Your task to perform on an android device: What's US dollar exchange rate against the South Korean Won? Image 0: 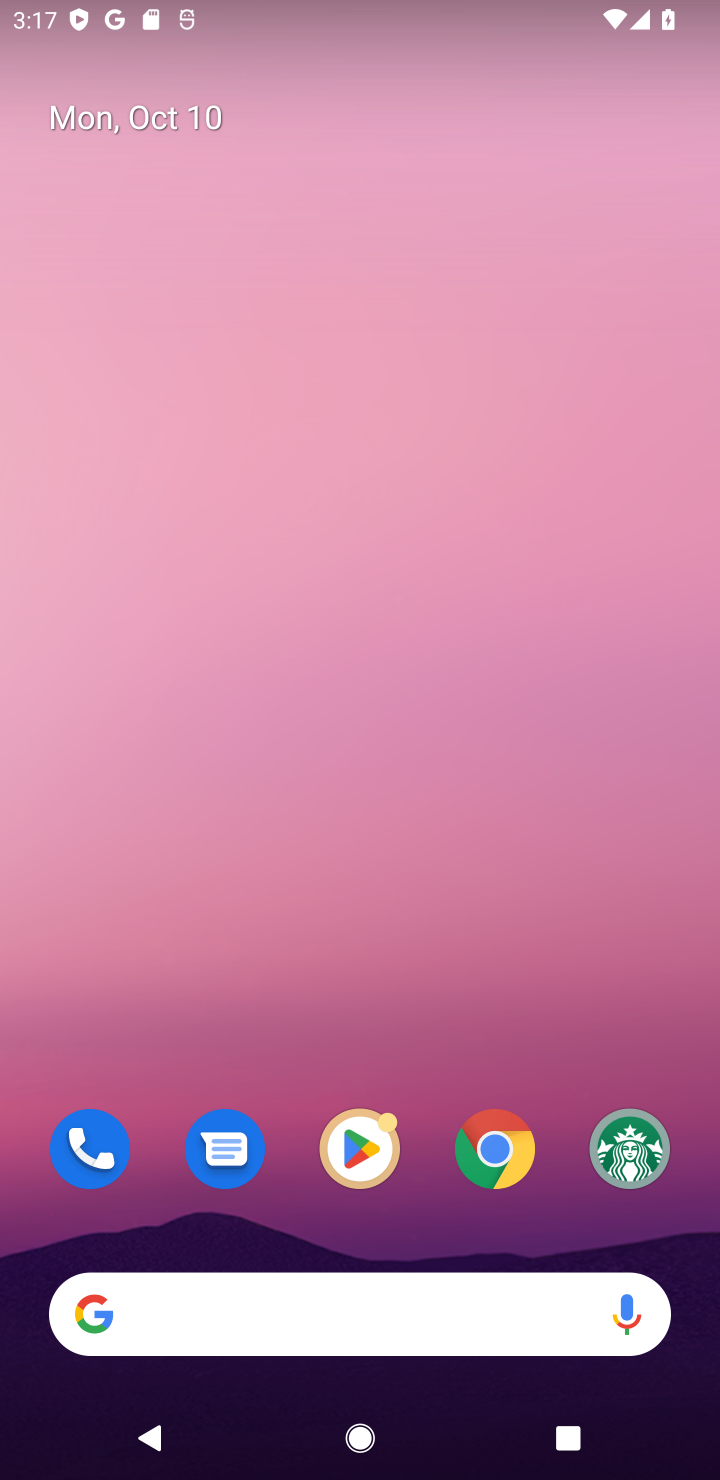
Step 0: click (416, 1291)
Your task to perform on an android device: What's US dollar exchange rate against the South Korean Won? Image 1: 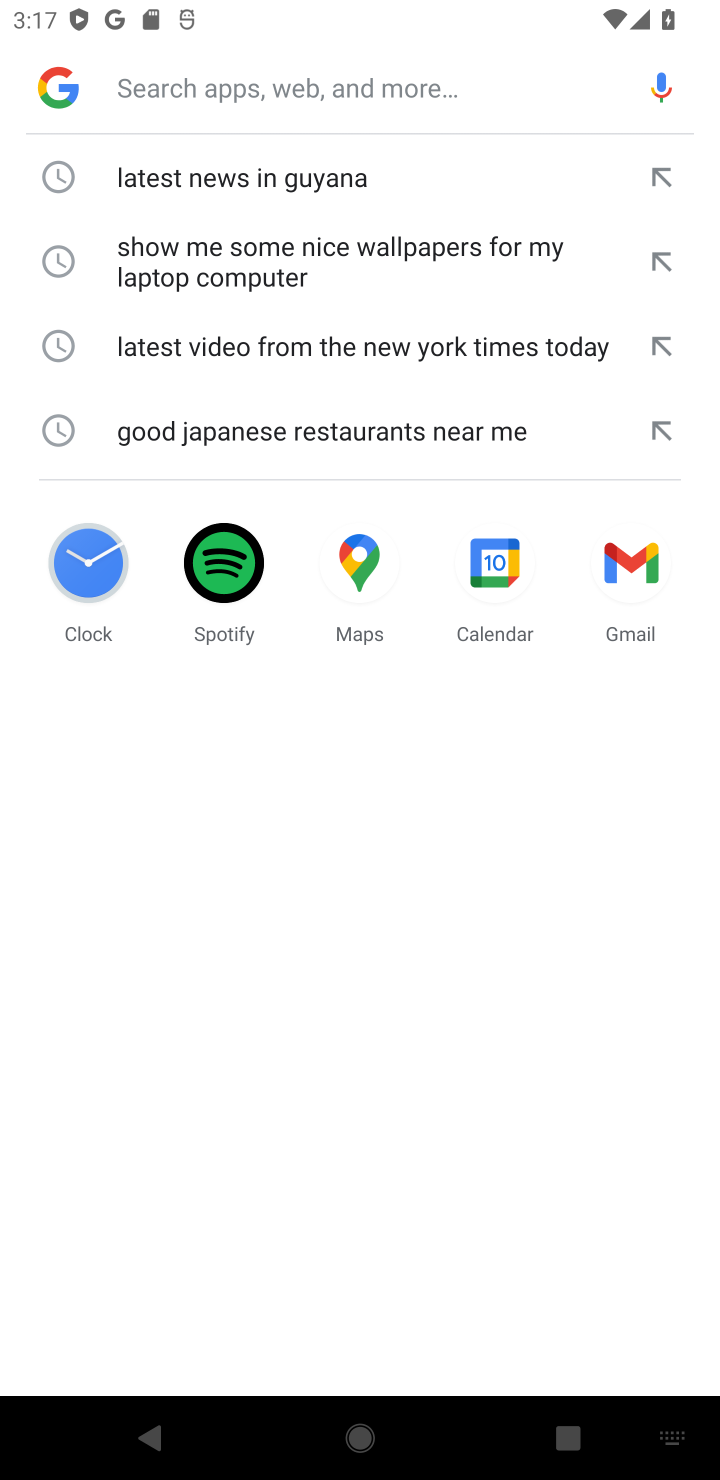
Step 1: type " US dollar exchange rate against the South Korean Won?"
Your task to perform on an android device: What's US dollar exchange rate against the South Korean Won? Image 2: 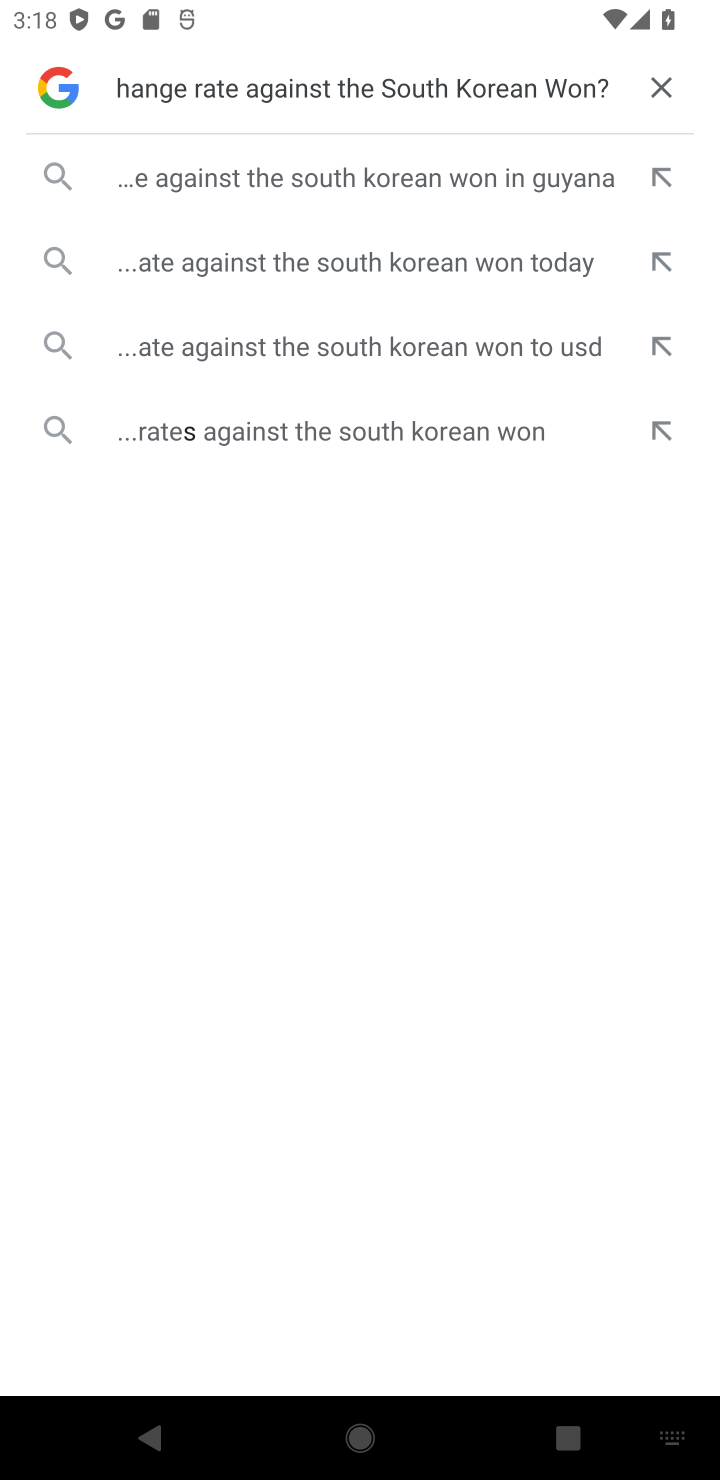
Step 2: click (458, 180)
Your task to perform on an android device: What's US dollar exchange rate against the South Korean Won? Image 3: 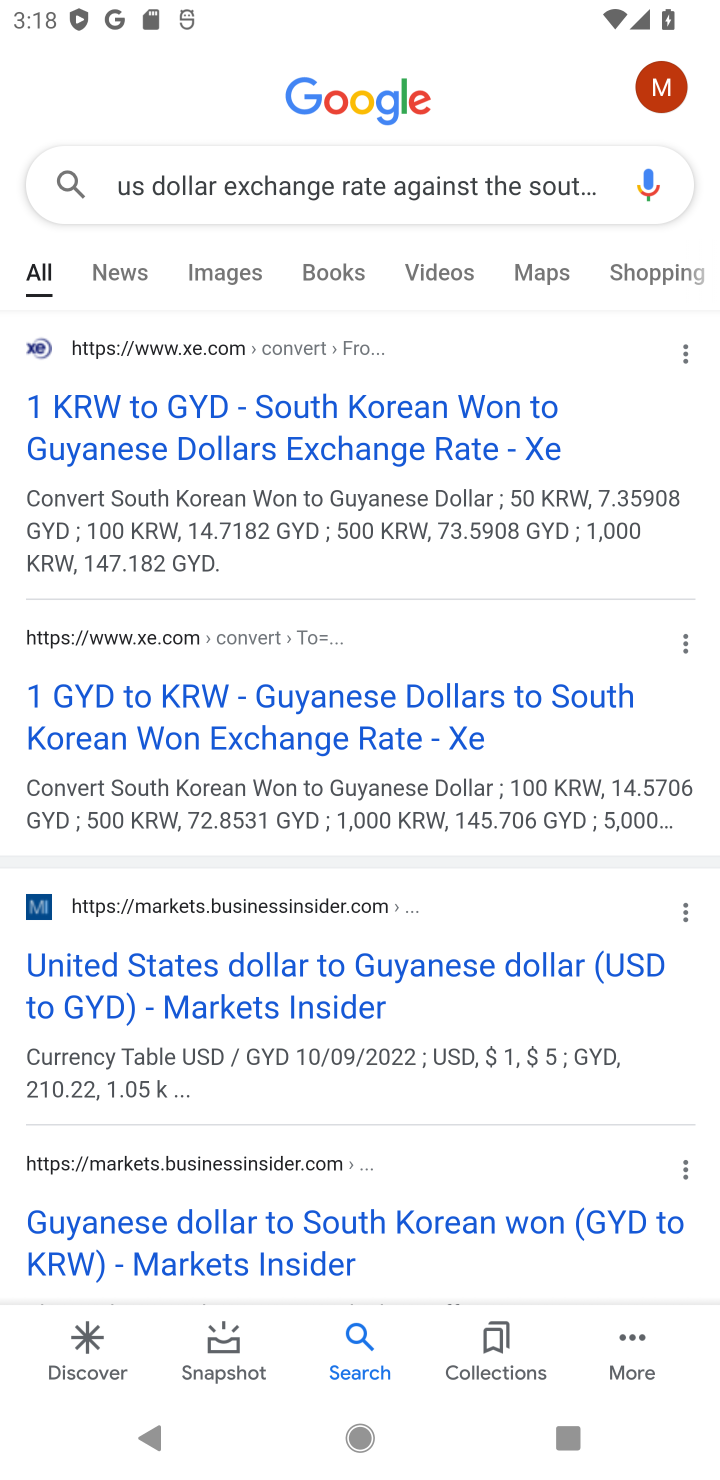
Step 3: click (440, 428)
Your task to perform on an android device: What's US dollar exchange rate against the South Korean Won? Image 4: 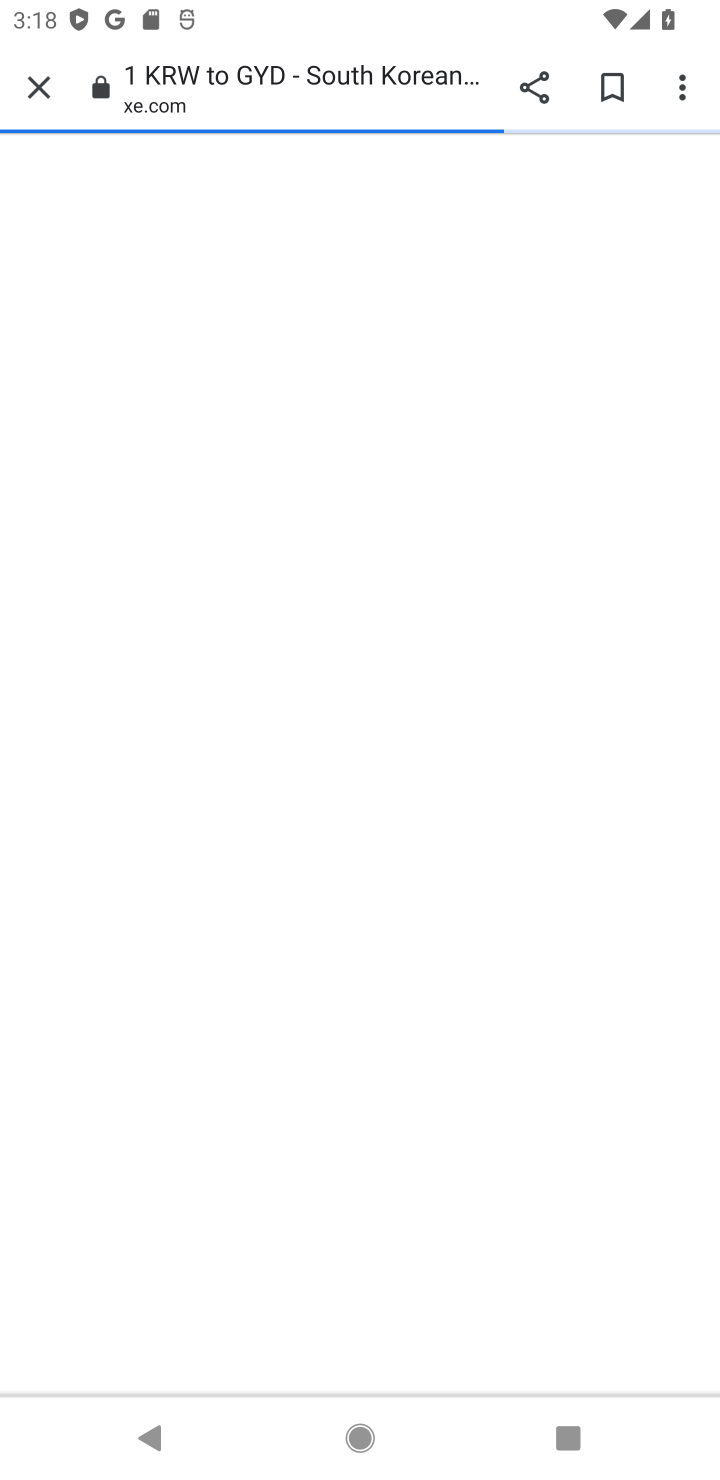
Step 4: task complete